Your task to perform on an android device: Open Chrome and go to settings Image 0: 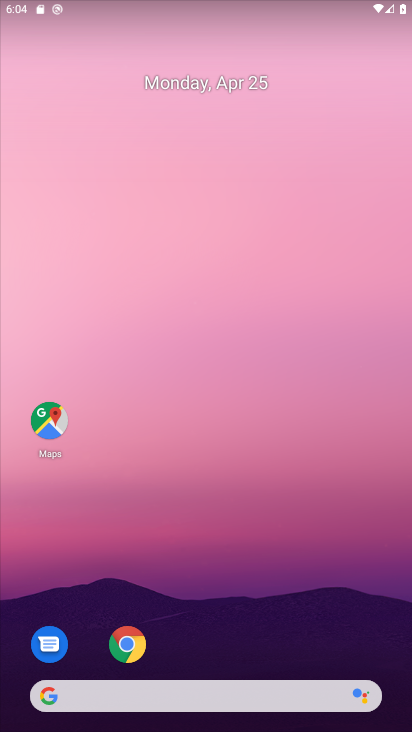
Step 0: click (138, 640)
Your task to perform on an android device: Open Chrome and go to settings Image 1: 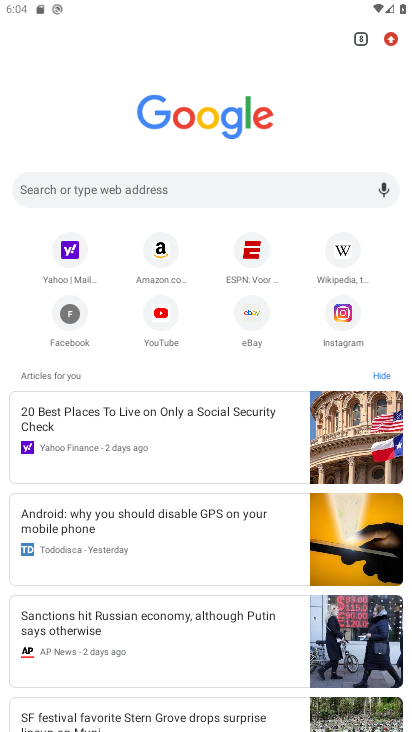
Step 1: click (389, 31)
Your task to perform on an android device: Open Chrome and go to settings Image 2: 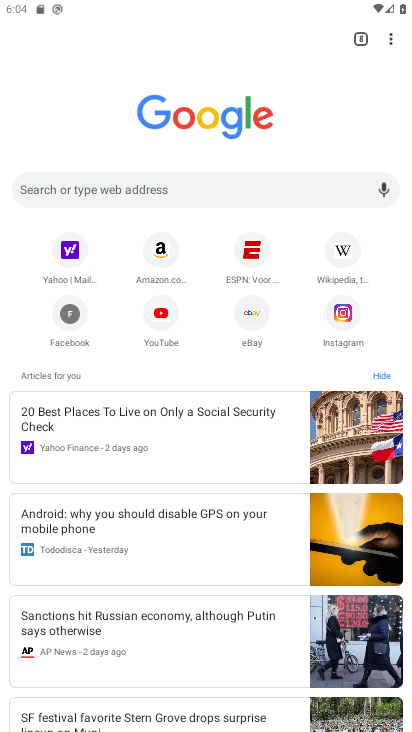
Step 2: click (385, 39)
Your task to perform on an android device: Open Chrome and go to settings Image 3: 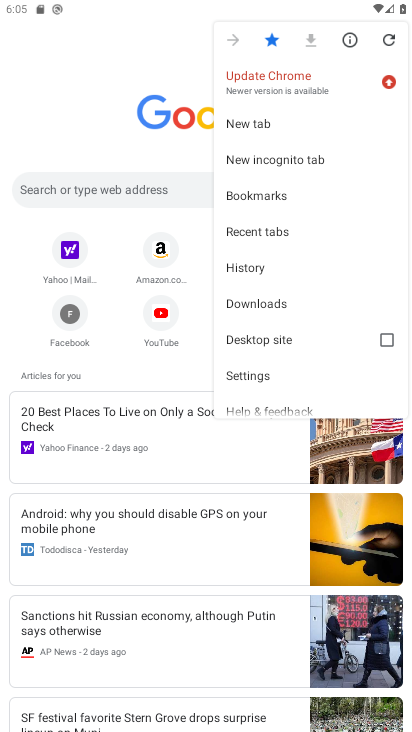
Step 3: click (266, 366)
Your task to perform on an android device: Open Chrome and go to settings Image 4: 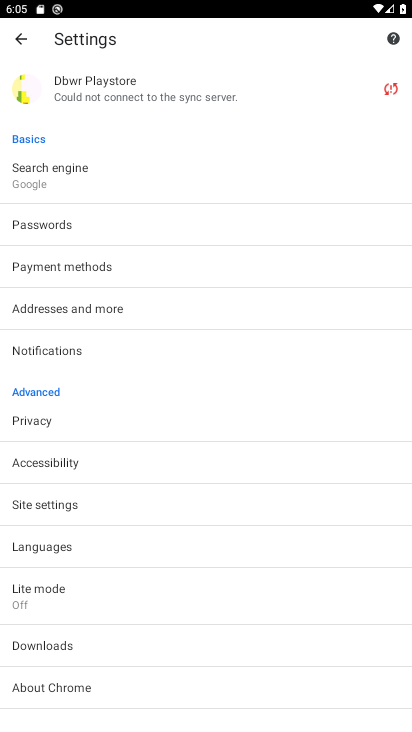
Step 4: task complete